Your task to perform on an android device: turn on data saver in the chrome app Image 0: 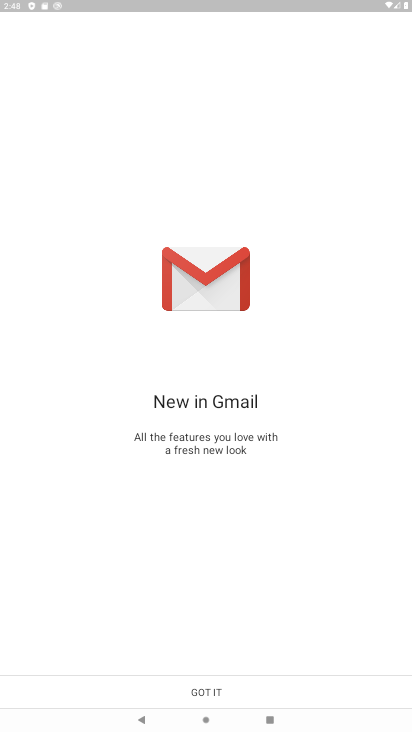
Step 0: press home button
Your task to perform on an android device: turn on data saver in the chrome app Image 1: 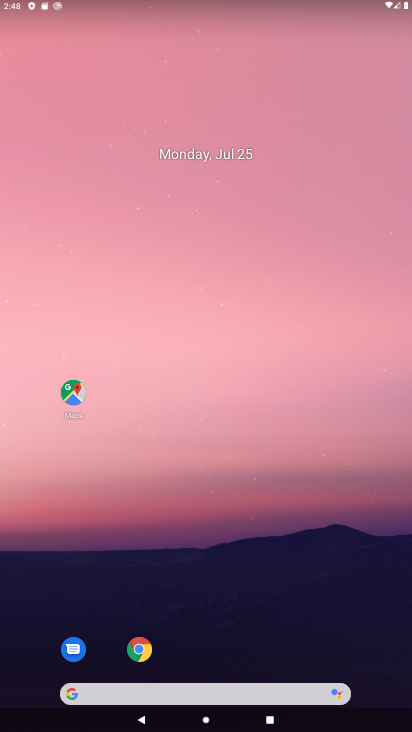
Step 1: click (145, 649)
Your task to perform on an android device: turn on data saver in the chrome app Image 2: 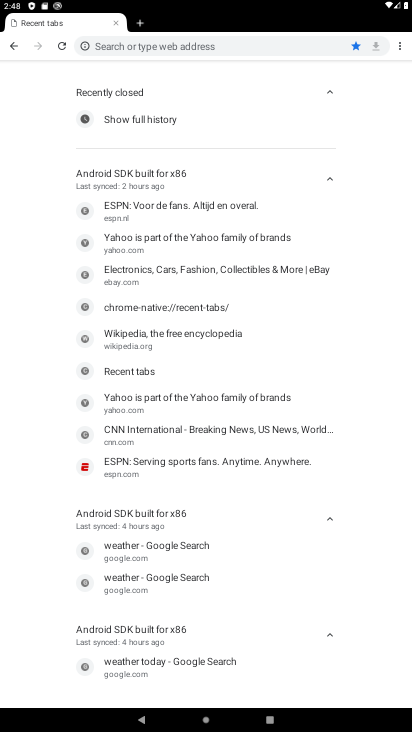
Step 2: click (402, 40)
Your task to perform on an android device: turn on data saver in the chrome app Image 3: 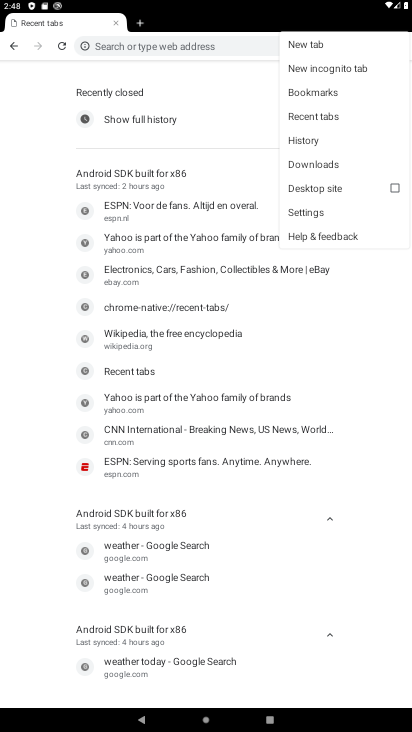
Step 3: click (328, 209)
Your task to perform on an android device: turn on data saver in the chrome app Image 4: 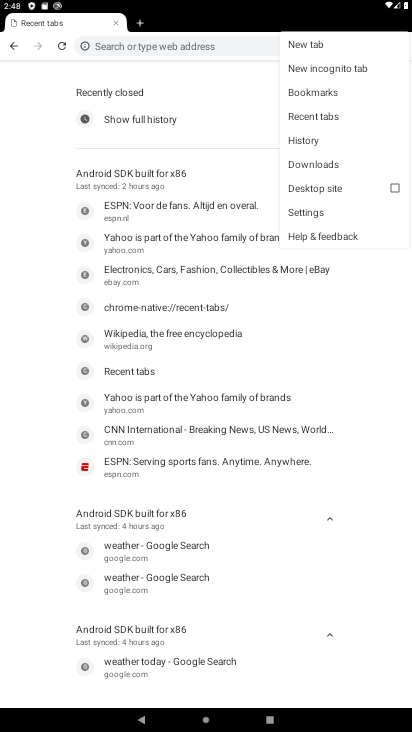
Step 4: click (328, 209)
Your task to perform on an android device: turn on data saver in the chrome app Image 5: 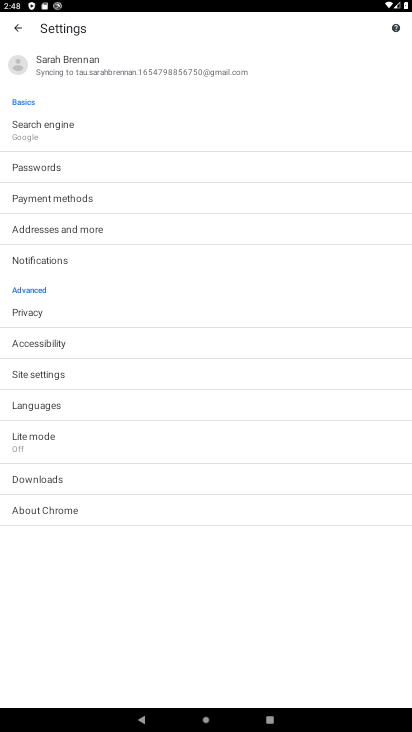
Step 5: click (126, 448)
Your task to perform on an android device: turn on data saver in the chrome app Image 6: 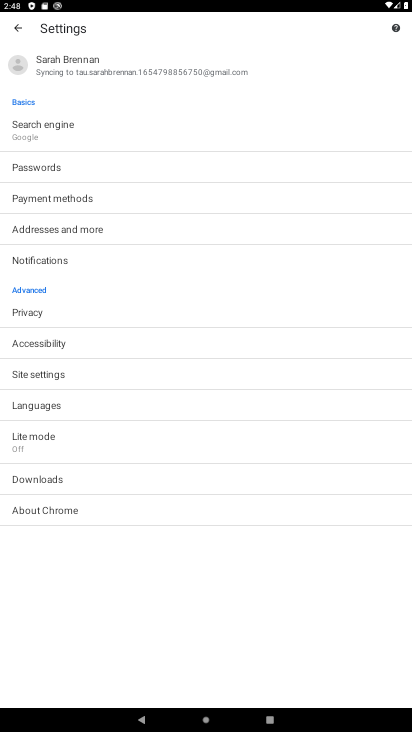
Step 6: click (126, 448)
Your task to perform on an android device: turn on data saver in the chrome app Image 7: 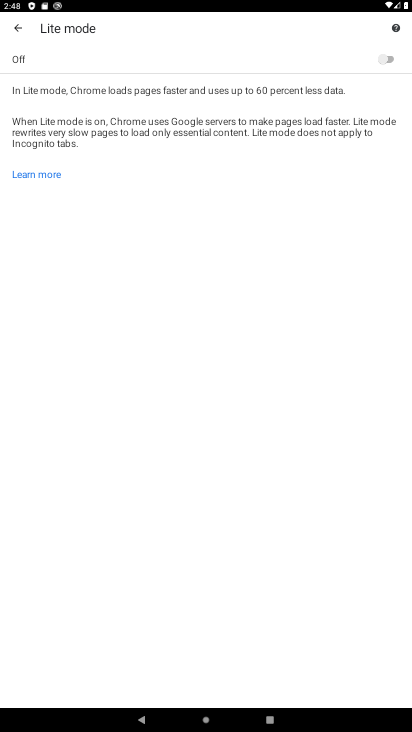
Step 7: click (387, 57)
Your task to perform on an android device: turn on data saver in the chrome app Image 8: 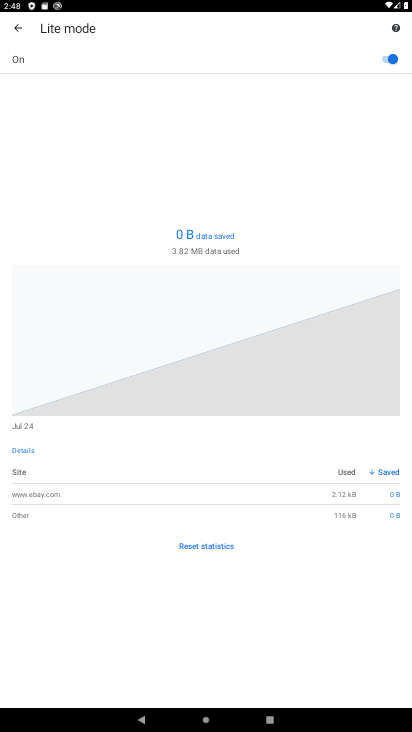
Step 8: task complete